Your task to perform on an android device: Open Wikipedia Image 0: 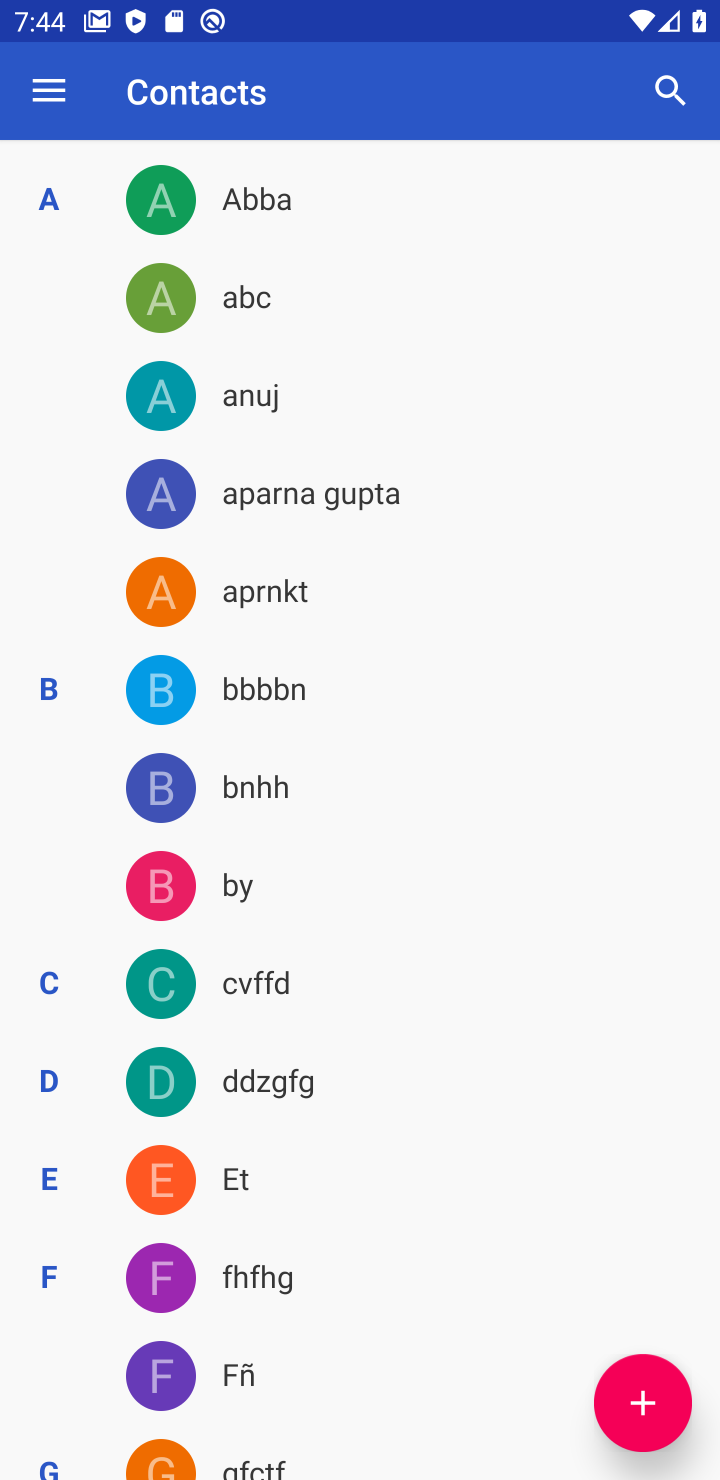
Step 0: press home button
Your task to perform on an android device: Open Wikipedia Image 1: 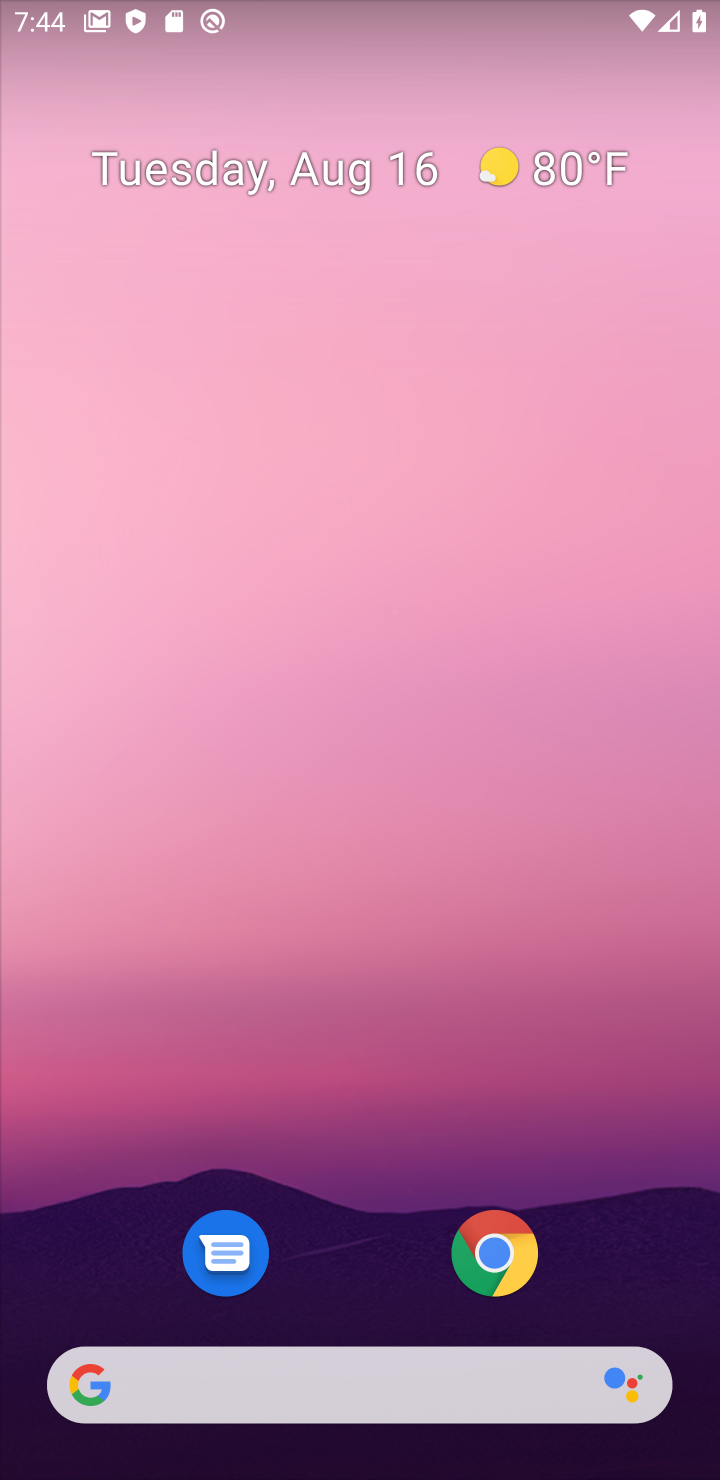
Step 1: drag from (300, 1401) to (328, 218)
Your task to perform on an android device: Open Wikipedia Image 2: 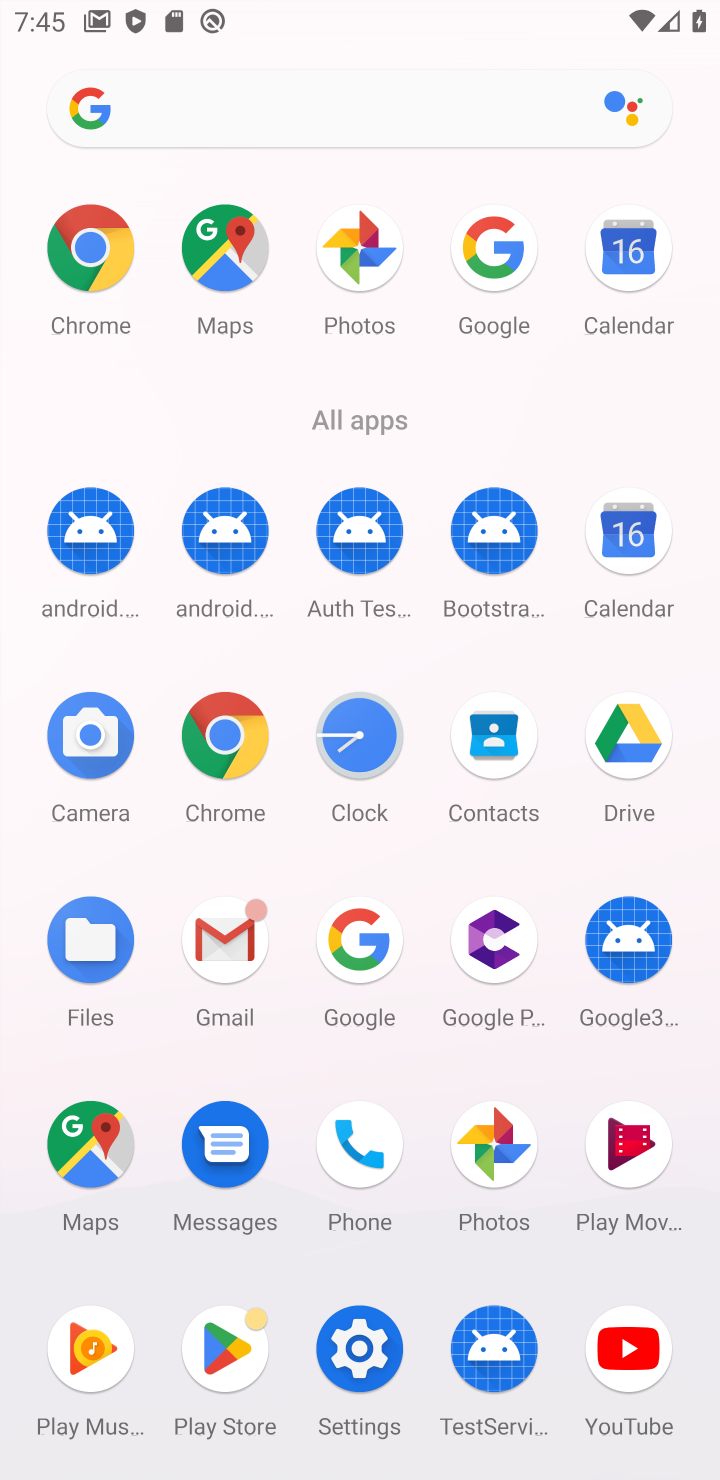
Step 2: click (351, 936)
Your task to perform on an android device: Open Wikipedia Image 3: 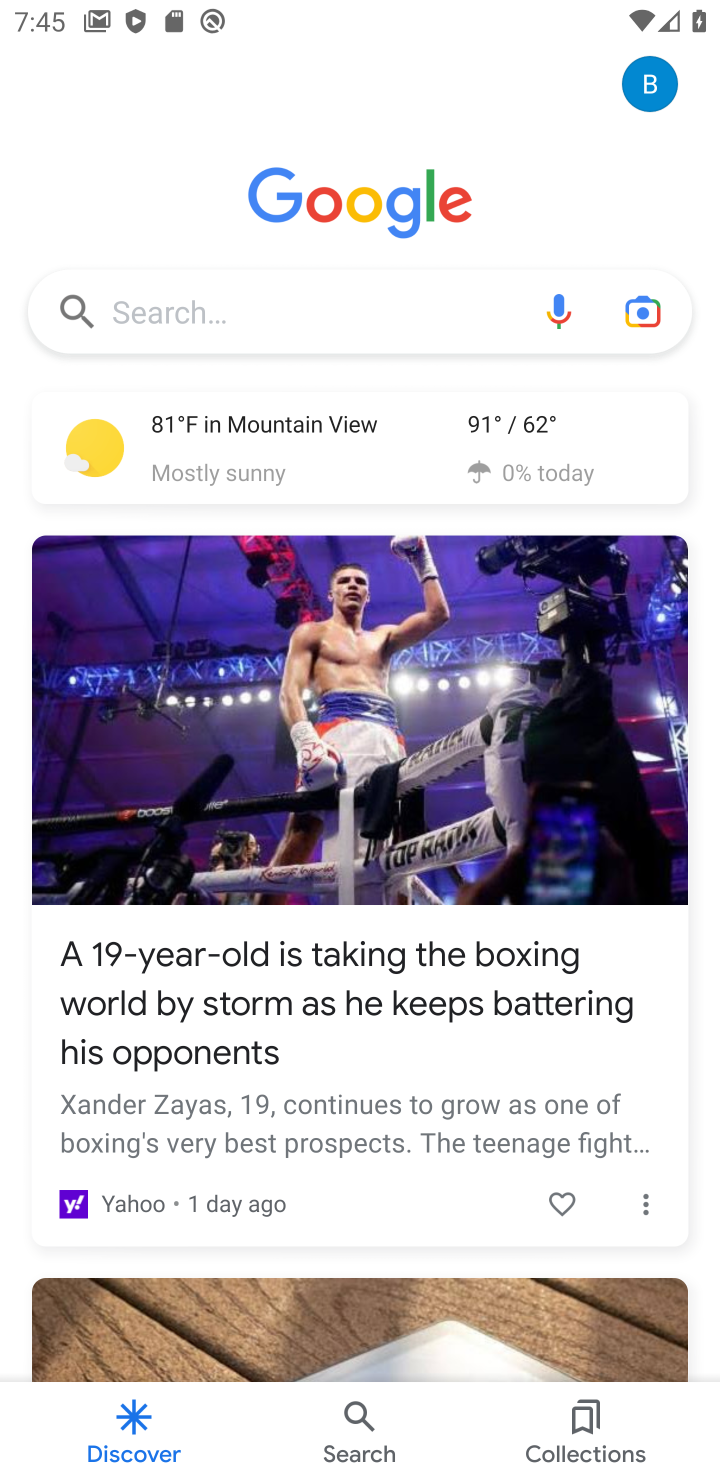
Step 3: click (298, 321)
Your task to perform on an android device: Open Wikipedia Image 4: 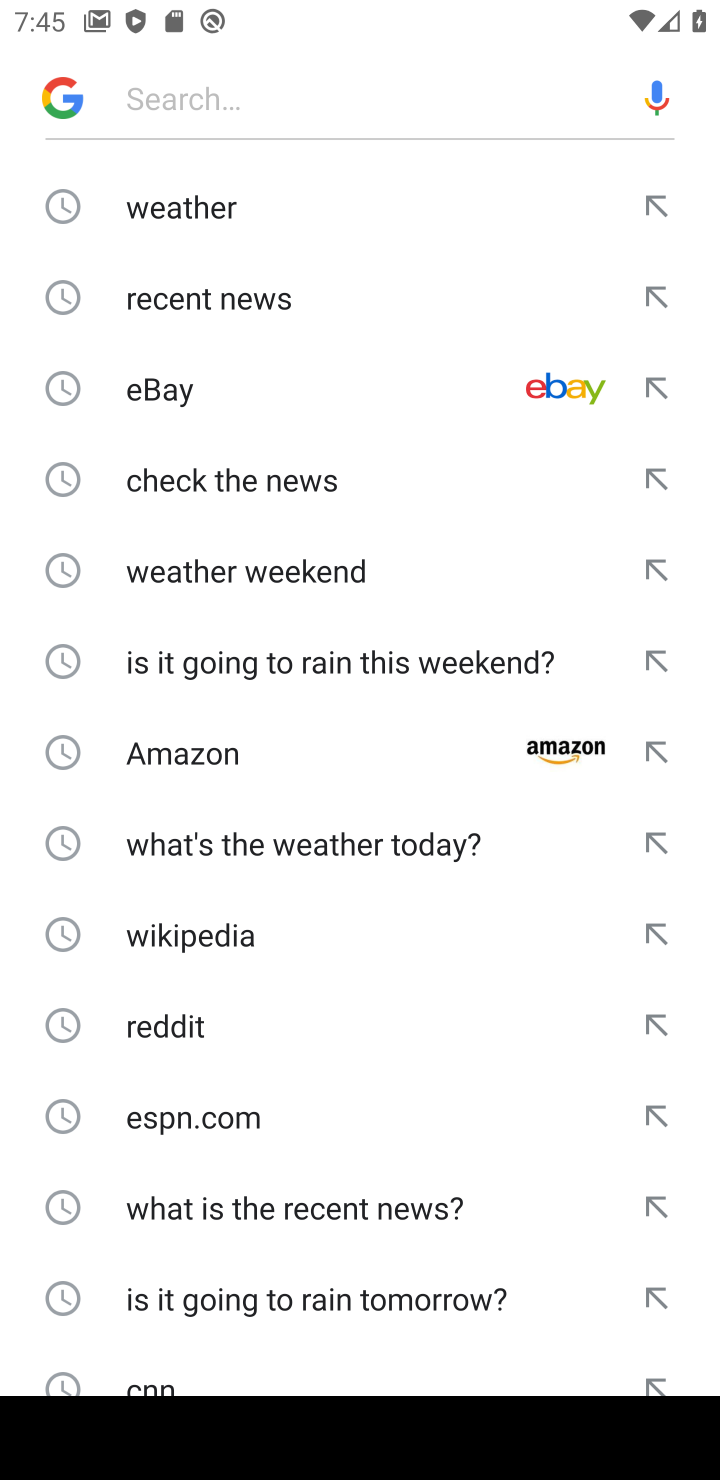
Step 4: click (243, 945)
Your task to perform on an android device: Open Wikipedia Image 5: 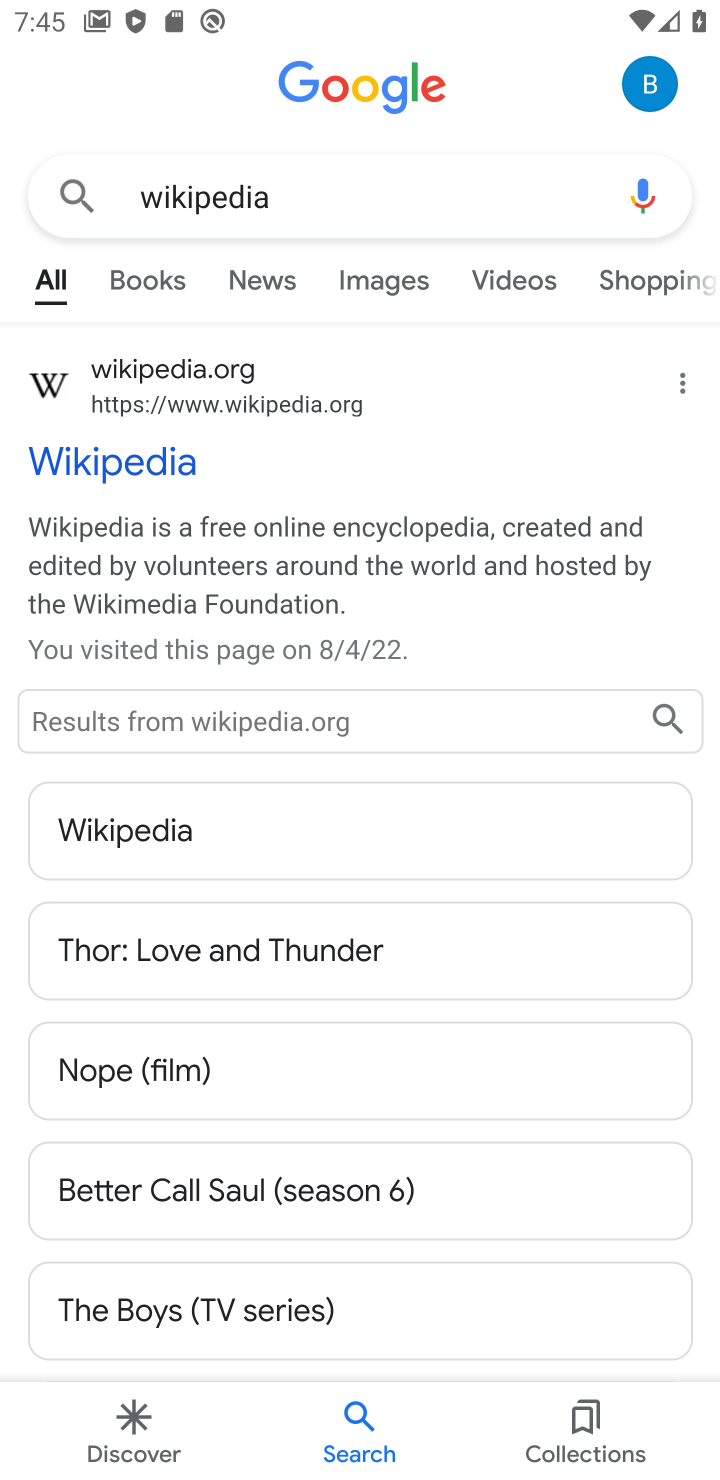
Step 5: click (169, 464)
Your task to perform on an android device: Open Wikipedia Image 6: 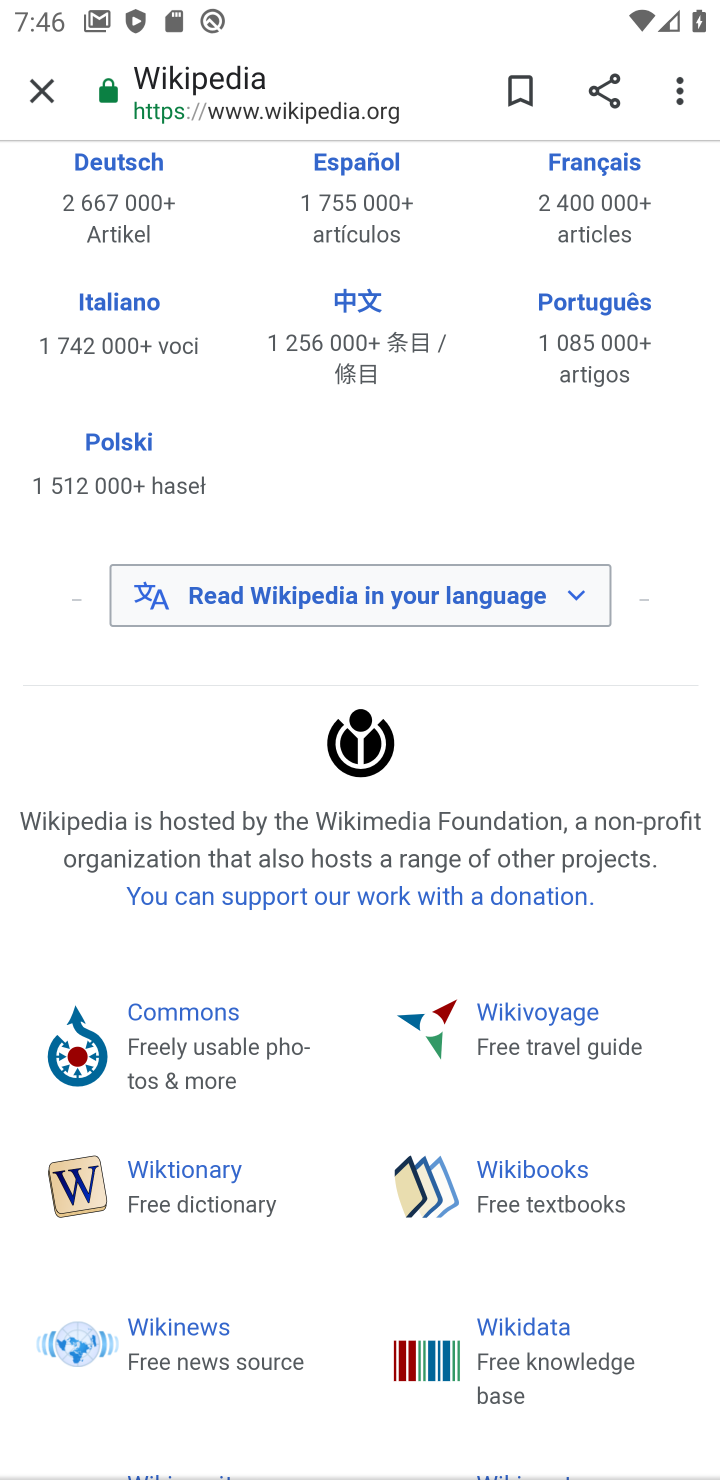
Step 6: task complete